Your task to perform on an android device: turn smart compose on in the gmail app Image 0: 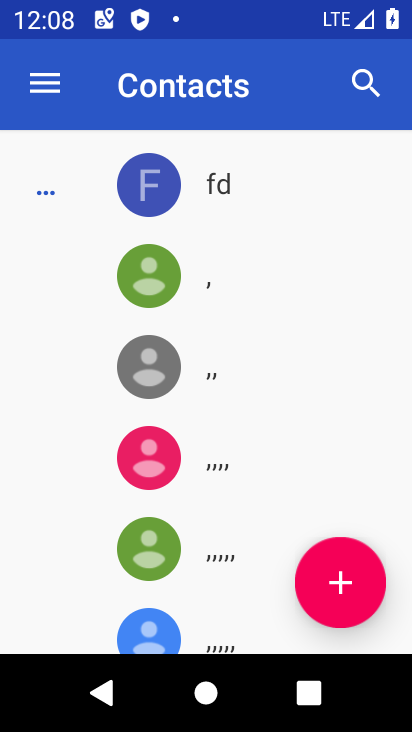
Step 0: press home button
Your task to perform on an android device: turn smart compose on in the gmail app Image 1: 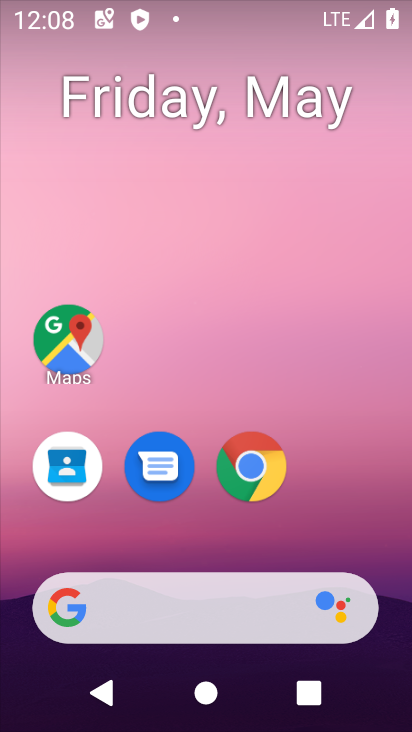
Step 1: drag from (260, 534) to (233, 101)
Your task to perform on an android device: turn smart compose on in the gmail app Image 2: 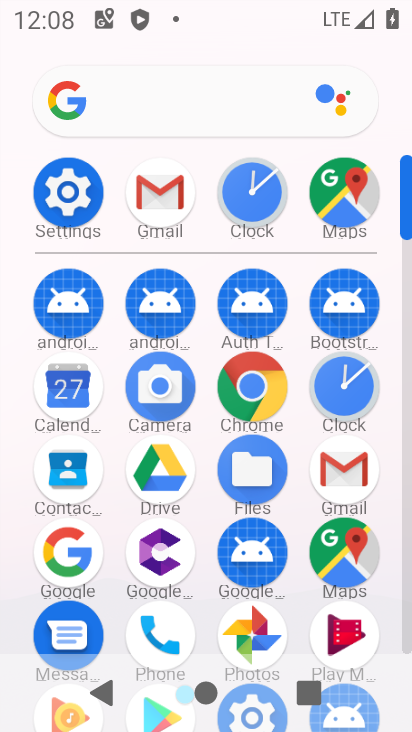
Step 2: click (340, 483)
Your task to perform on an android device: turn smart compose on in the gmail app Image 3: 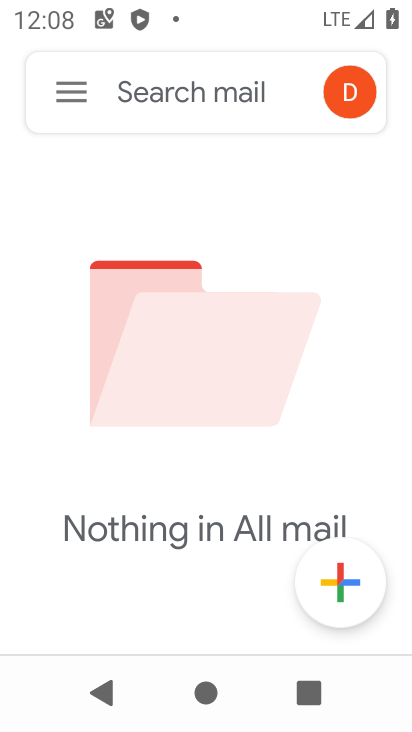
Step 3: click (75, 89)
Your task to perform on an android device: turn smart compose on in the gmail app Image 4: 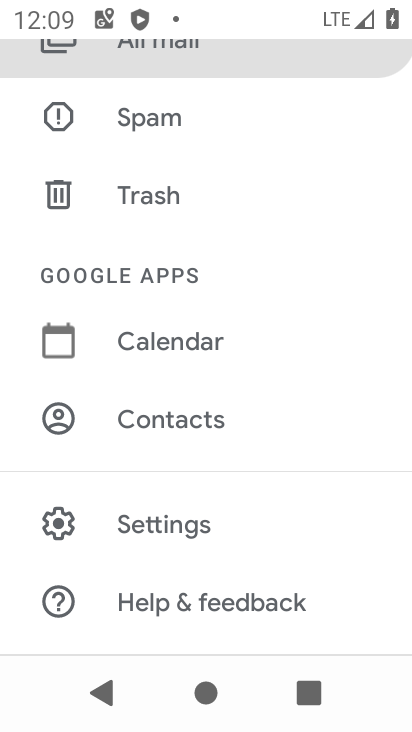
Step 4: click (153, 519)
Your task to perform on an android device: turn smart compose on in the gmail app Image 5: 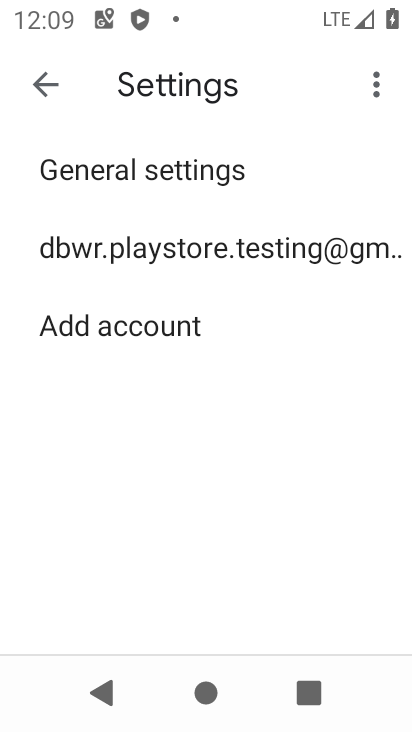
Step 5: click (158, 259)
Your task to perform on an android device: turn smart compose on in the gmail app Image 6: 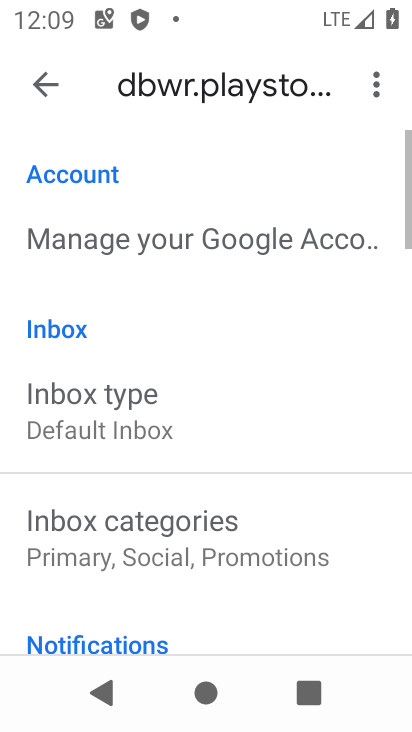
Step 6: task complete